Your task to perform on an android device: uninstall "Google Sheets" Image 0: 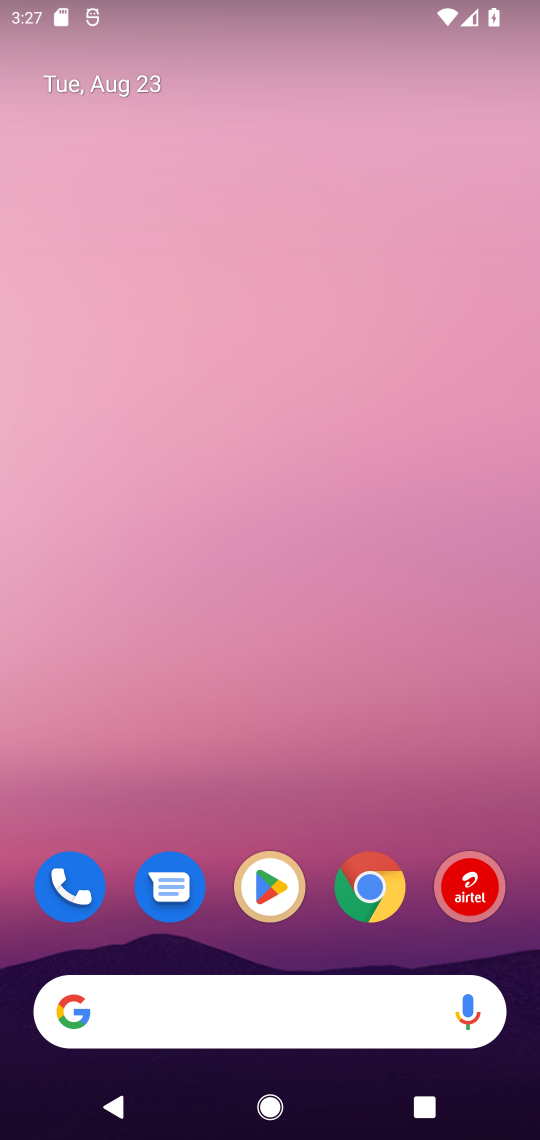
Step 0: click (265, 880)
Your task to perform on an android device: uninstall "Google Sheets" Image 1: 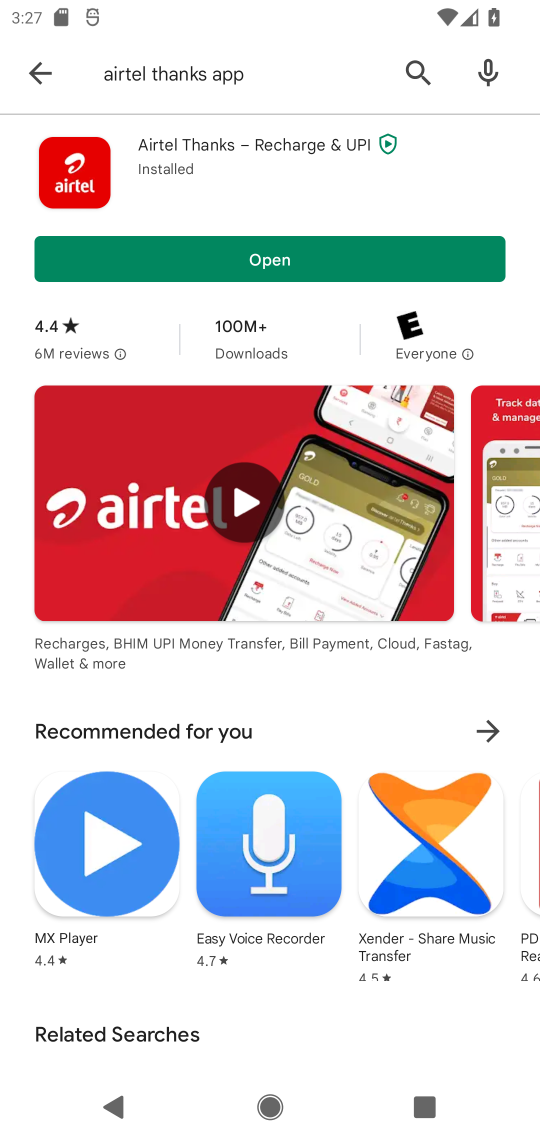
Step 1: click (42, 75)
Your task to perform on an android device: uninstall "Google Sheets" Image 2: 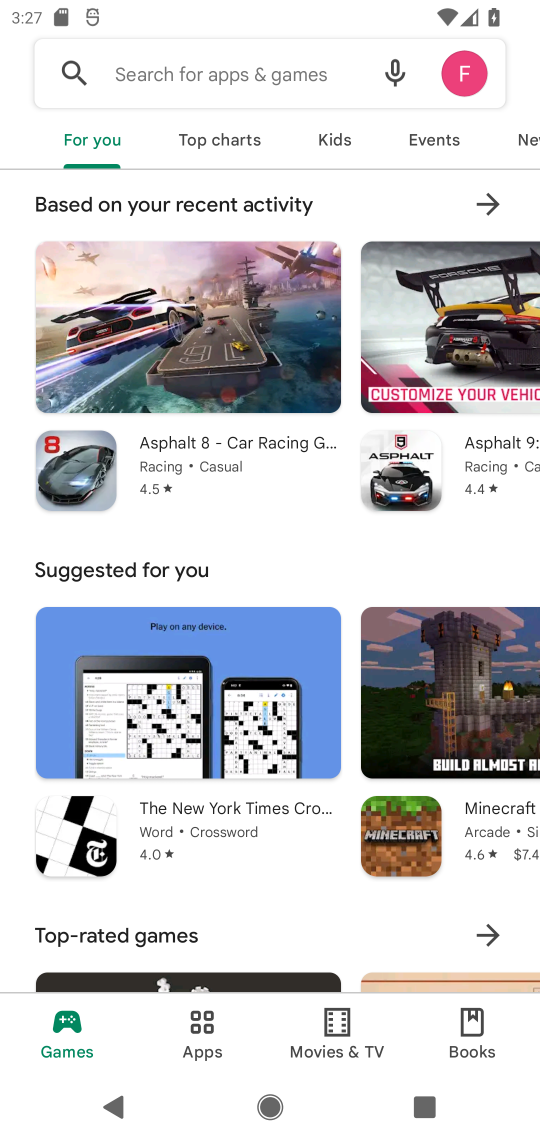
Step 2: click (180, 75)
Your task to perform on an android device: uninstall "Google Sheets" Image 3: 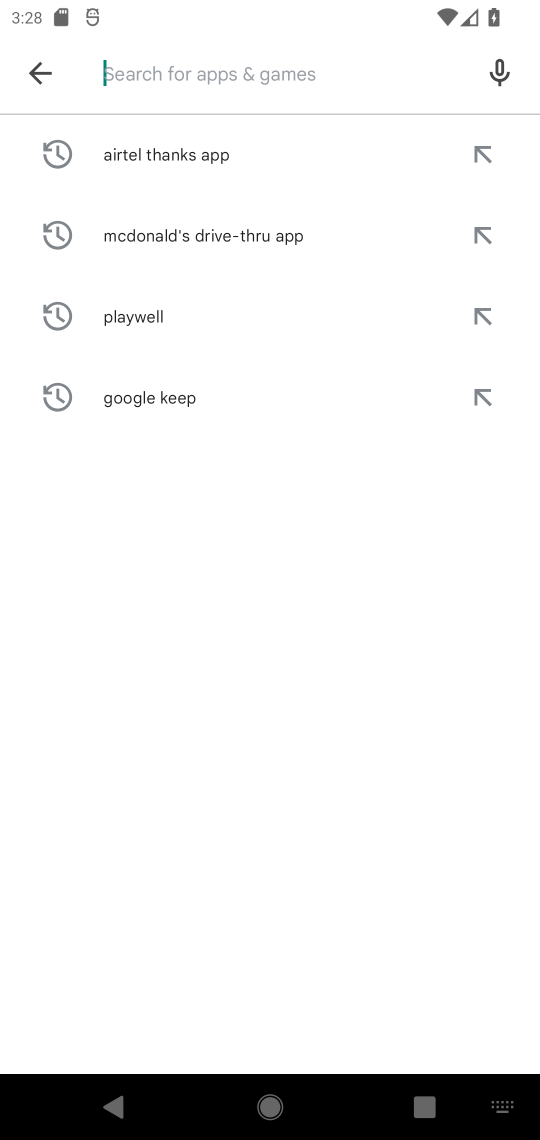
Step 3: type "Google Sheets"
Your task to perform on an android device: uninstall "Google Sheets" Image 4: 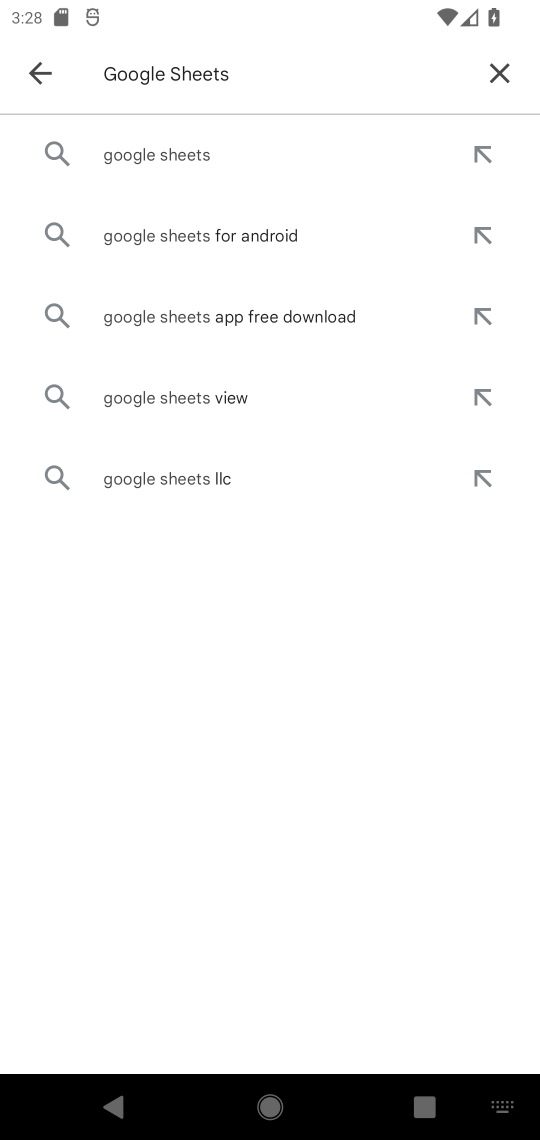
Step 4: click (179, 161)
Your task to perform on an android device: uninstall "Google Sheets" Image 5: 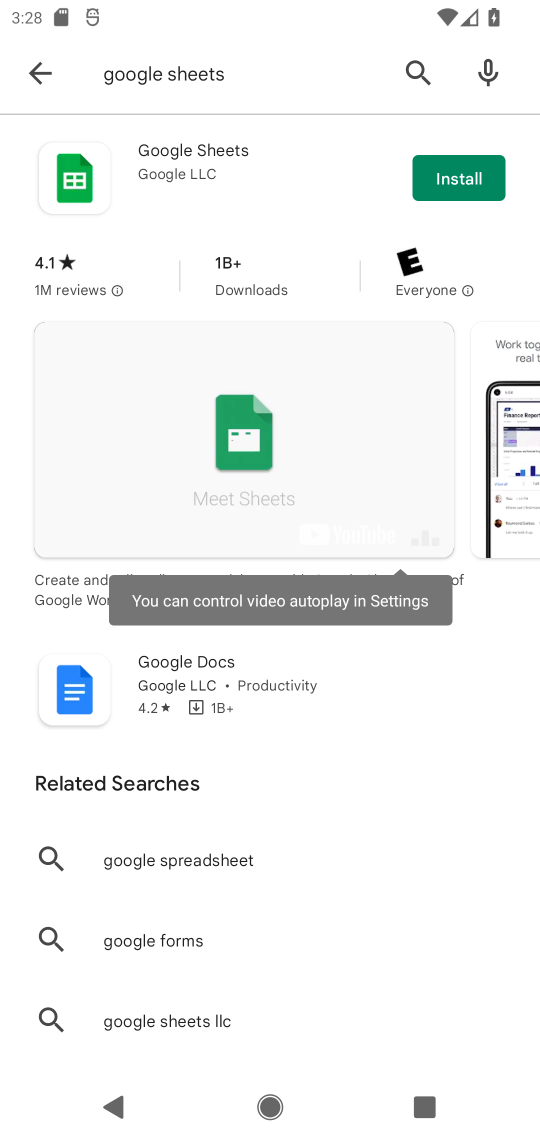
Step 5: task complete